Your task to perform on an android device: What is the news today? Image 0: 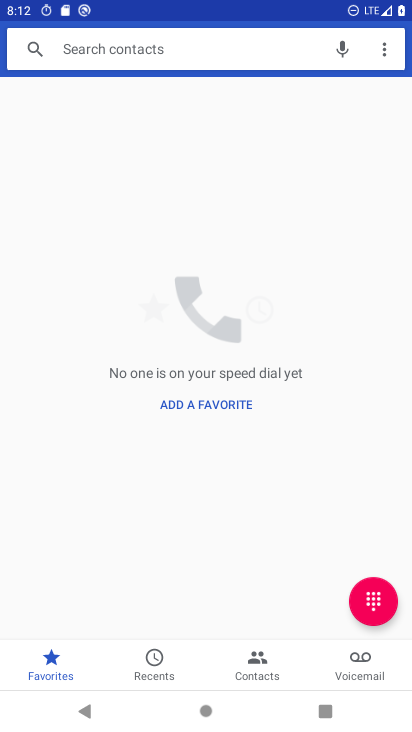
Step 0: press home button
Your task to perform on an android device: What is the news today? Image 1: 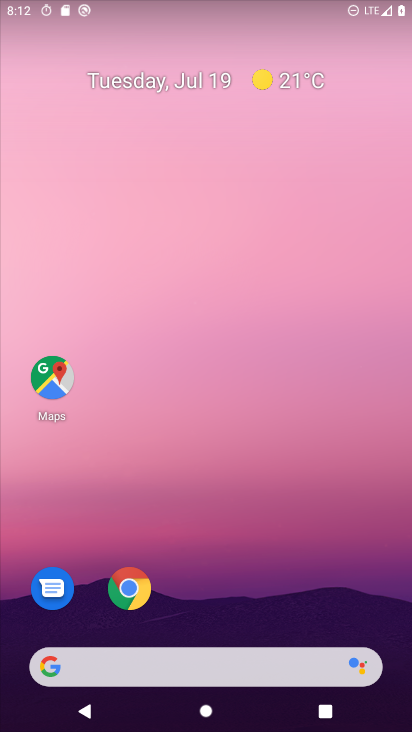
Step 1: drag from (283, 568) to (341, 101)
Your task to perform on an android device: What is the news today? Image 2: 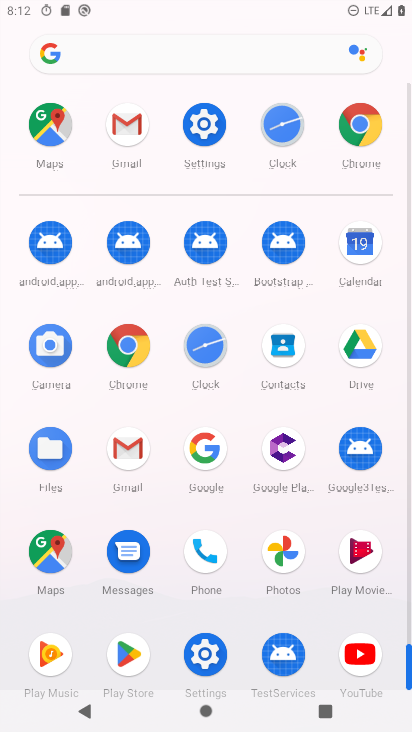
Step 2: click (203, 466)
Your task to perform on an android device: What is the news today? Image 3: 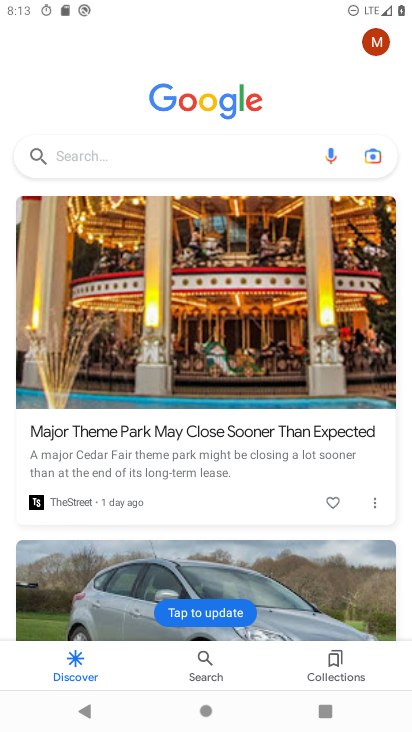
Step 3: task complete